Your task to perform on an android device: Open the web browser Image 0: 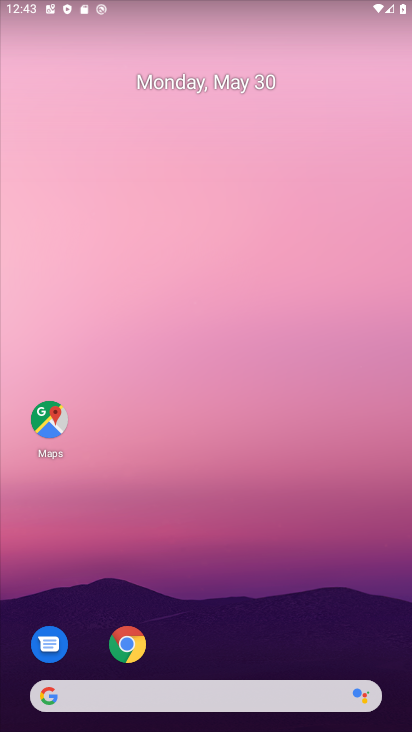
Step 0: click (303, 97)
Your task to perform on an android device: Open the web browser Image 1: 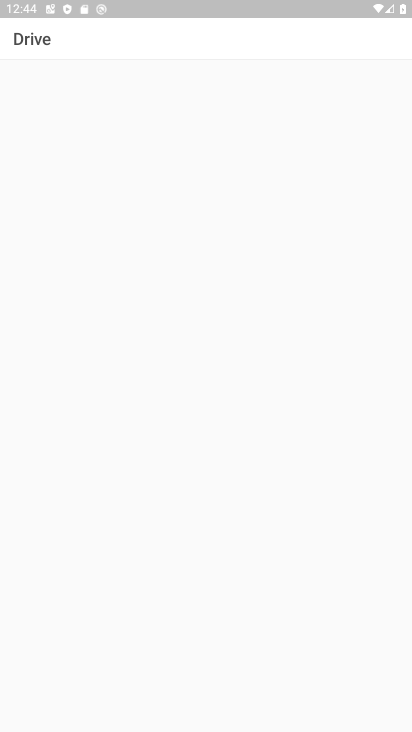
Step 1: press home button
Your task to perform on an android device: Open the web browser Image 2: 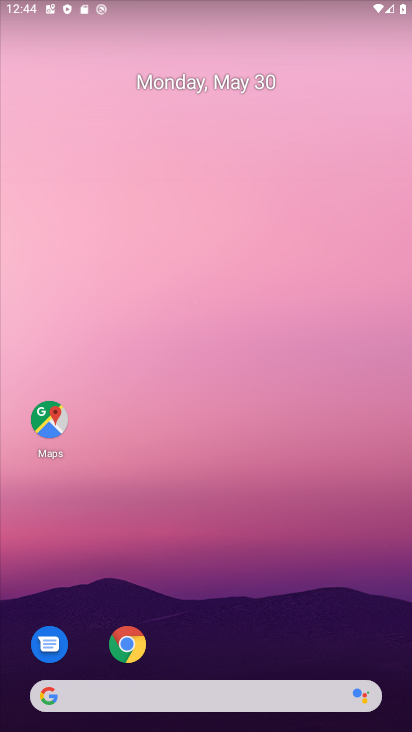
Step 2: drag from (241, 613) to (229, 225)
Your task to perform on an android device: Open the web browser Image 3: 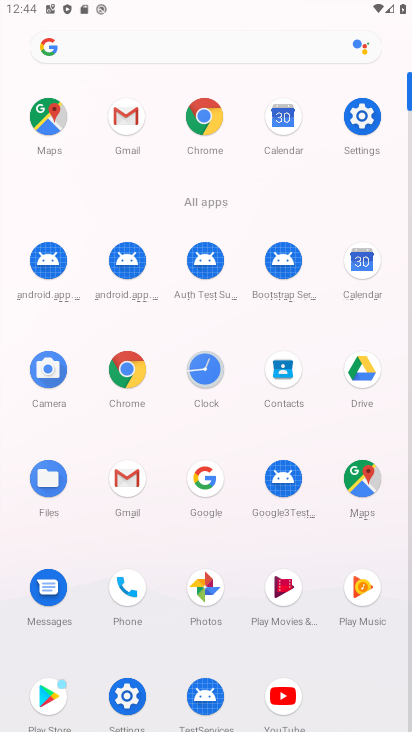
Step 3: click (142, 386)
Your task to perform on an android device: Open the web browser Image 4: 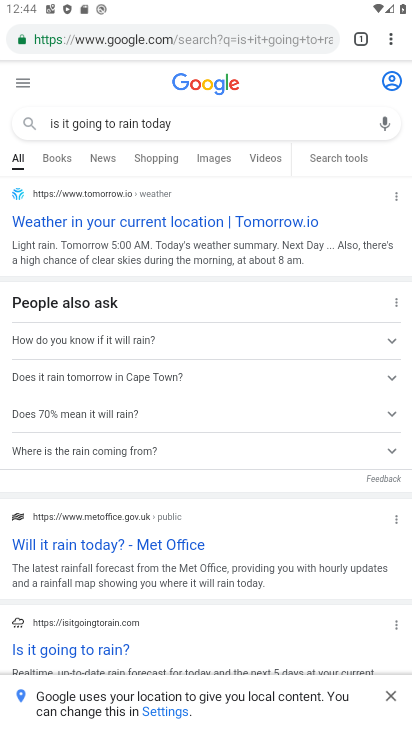
Step 4: task complete